Your task to perform on an android device: add a contact in the contacts app Image 0: 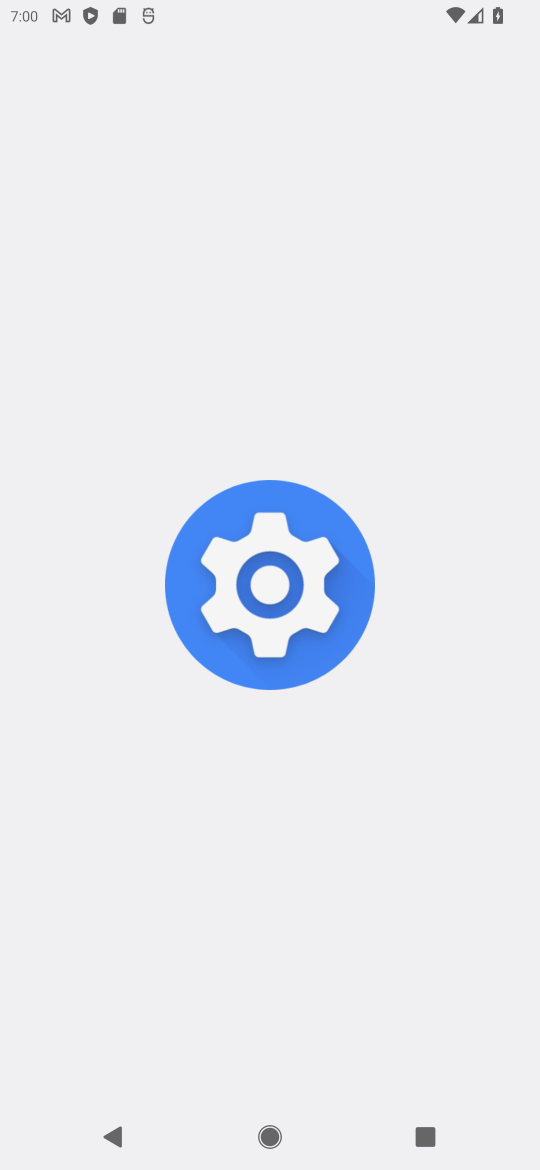
Step 0: press home button
Your task to perform on an android device: add a contact in the contacts app Image 1: 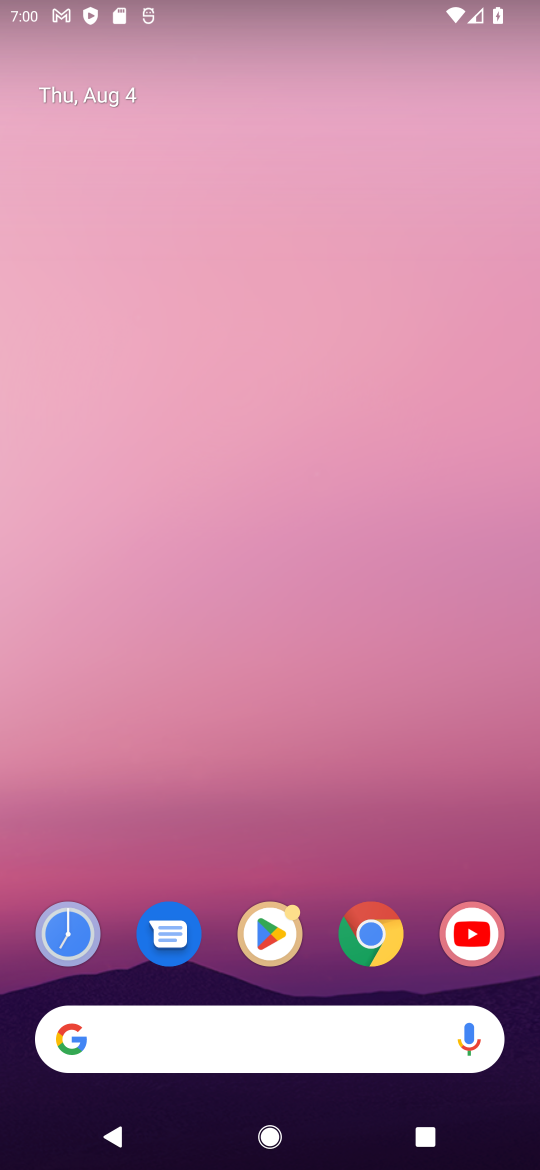
Step 1: drag from (209, 1024) to (205, 0)
Your task to perform on an android device: add a contact in the contacts app Image 2: 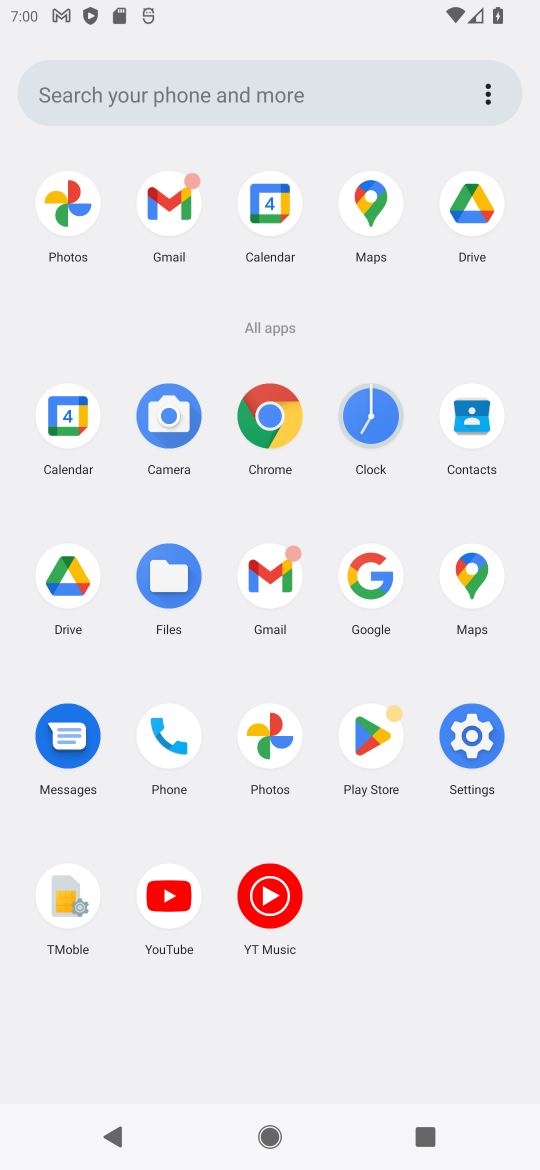
Step 2: click (472, 424)
Your task to perform on an android device: add a contact in the contacts app Image 3: 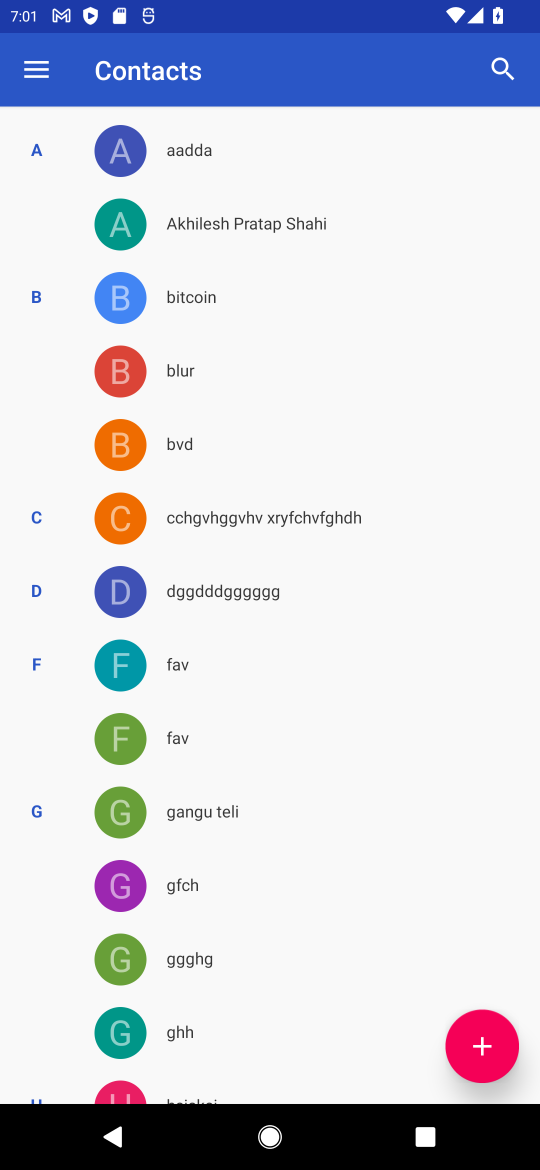
Step 3: click (481, 1042)
Your task to perform on an android device: add a contact in the contacts app Image 4: 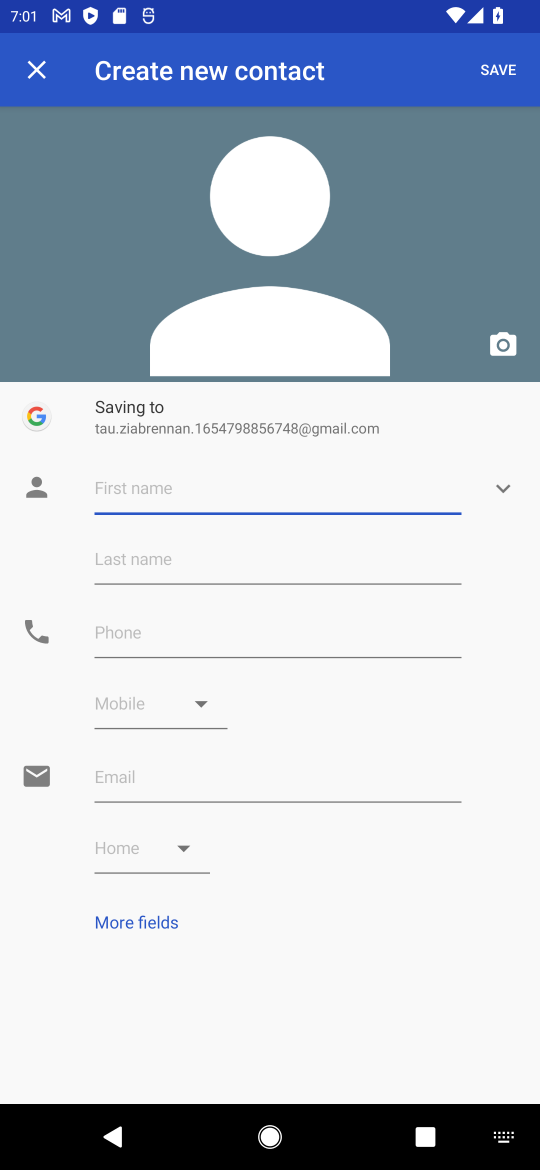
Step 4: type "xcbv nxck'"
Your task to perform on an android device: add a contact in the contacts app Image 5: 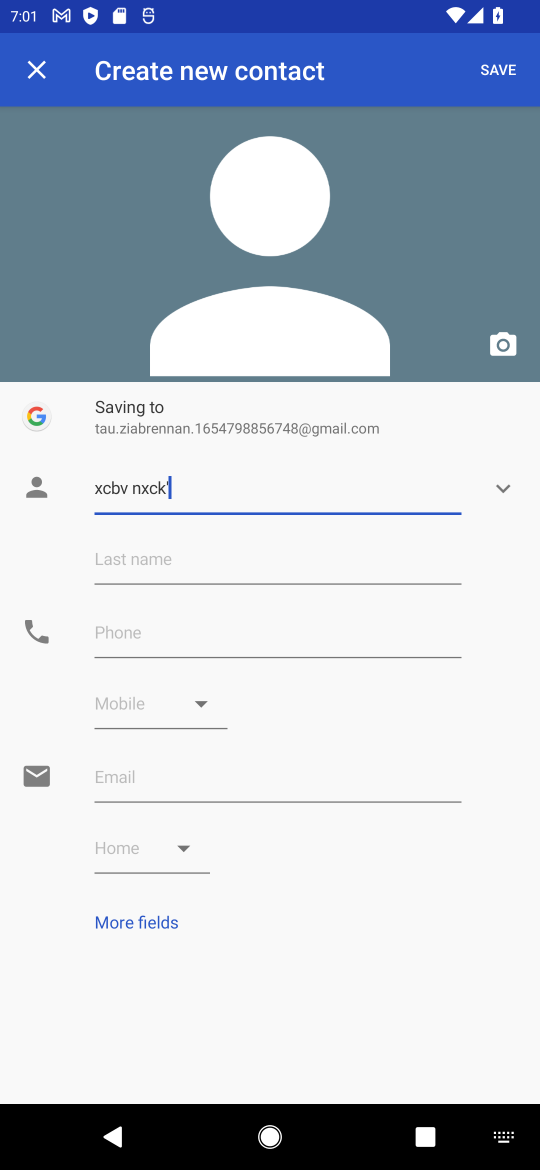
Step 5: click (294, 642)
Your task to perform on an android device: add a contact in the contacts app Image 6: 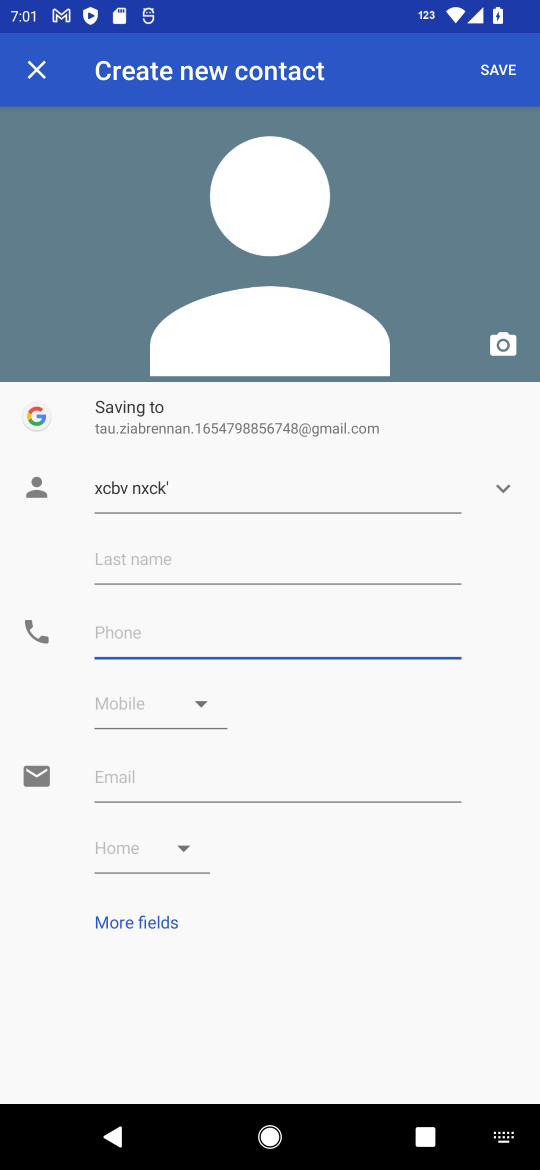
Step 6: type "483759834"
Your task to perform on an android device: add a contact in the contacts app Image 7: 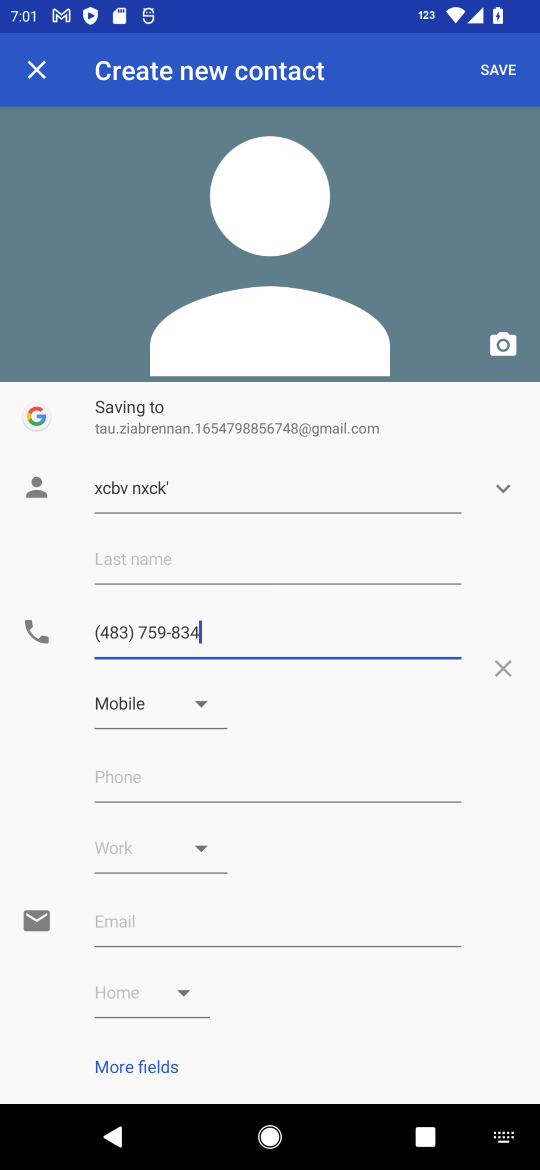
Step 7: click (502, 60)
Your task to perform on an android device: add a contact in the contacts app Image 8: 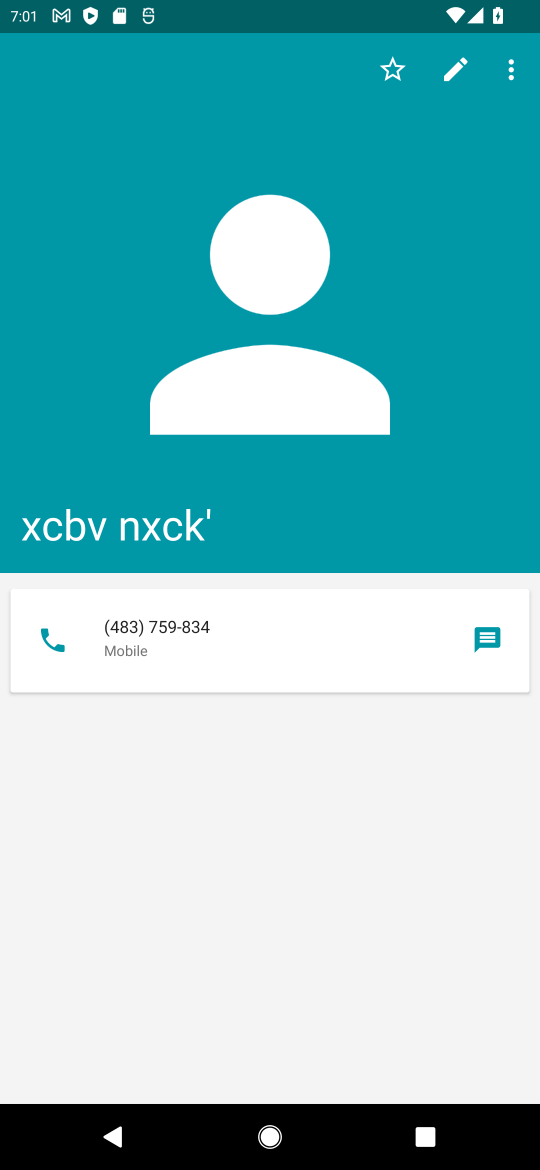
Step 8: task complete